Your task to perform on an android device: empty trash in the gmail app Image 0: 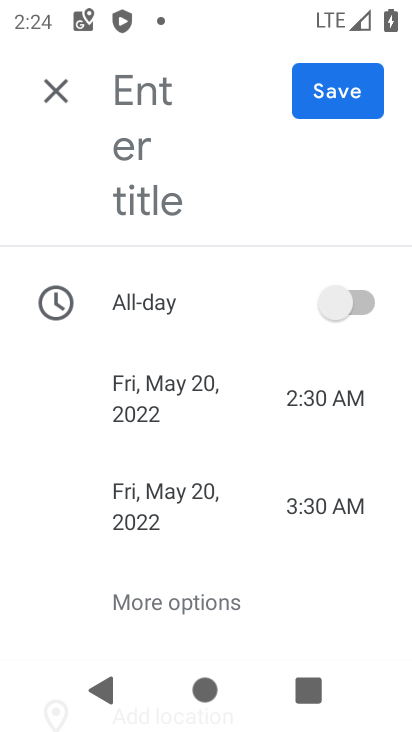
Step 0: press home button
Your task to perform on an android device: empty trash in the gmail app Image 1: 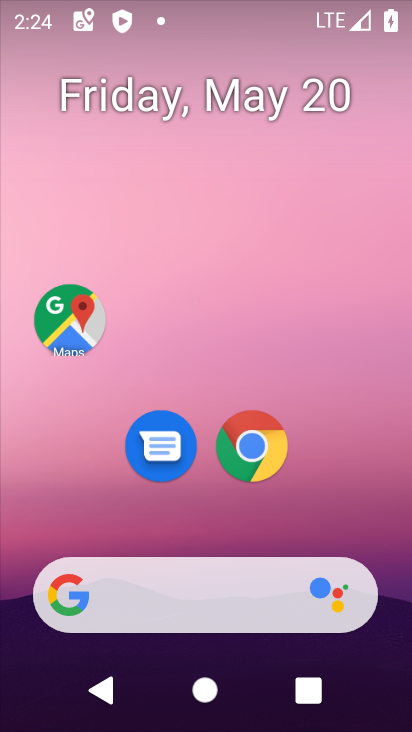
Step 1: drag from (352, 534) to (364, 17)
Your task to perform on an android device: empty trash in the gmail app Image 2: 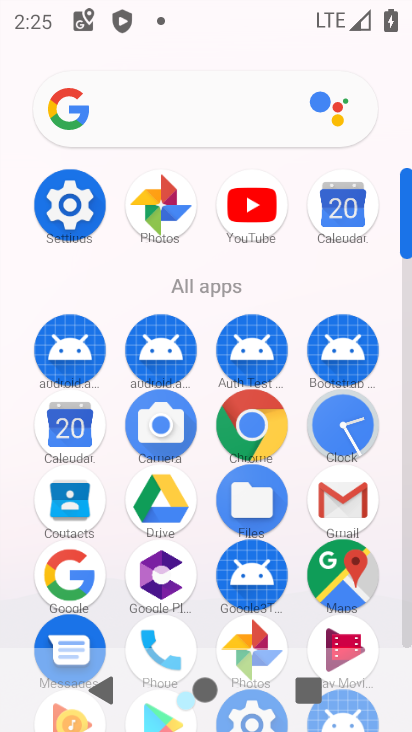
Step 2: click (334, 500)
Your task to perform on an android device: empty trash in the gmail app Image 3: 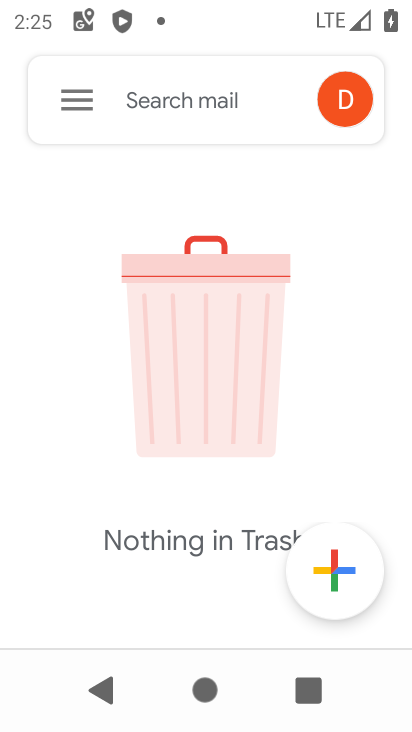
Step 3: task complete